Your task to perform on an android device: turn off picture-in-picture Image 0: 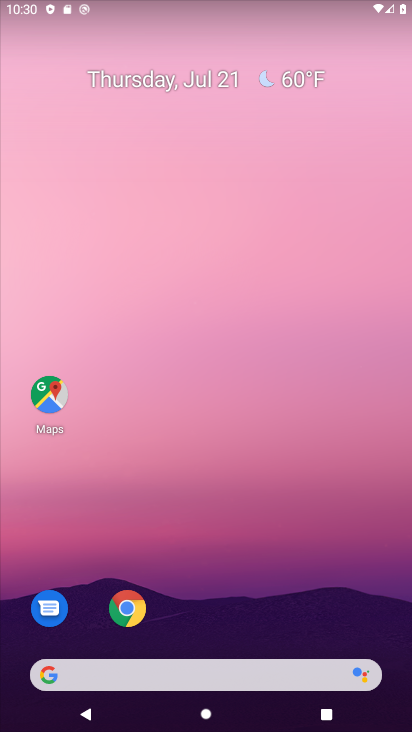
Step 0: click (135, 610)
Your task to perform on an android device: turn off picture-in-picture Image 1: 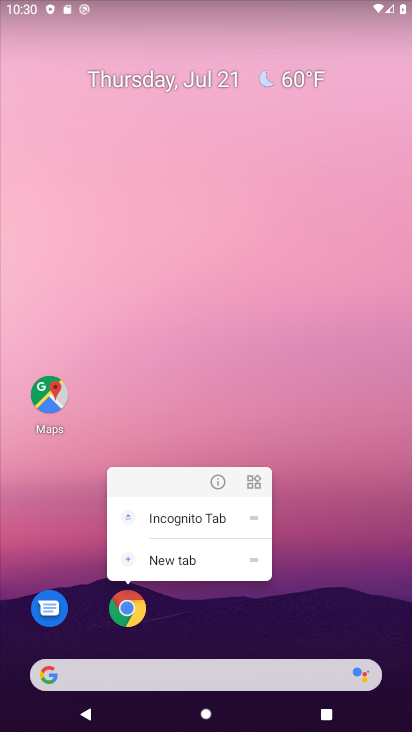
Step 1: click (220, 483)
Your task to perform on an android device: turn off picture-in-picture Image 2: 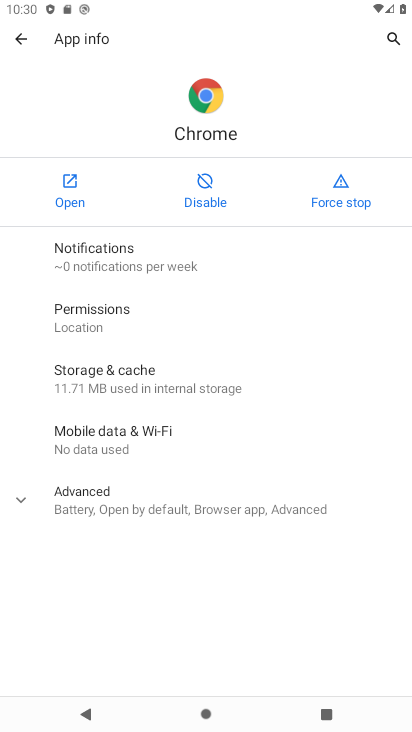
Step 2: click (95, 502)
Your task to perform on an android device: turn off picture-in-picture Image 3: 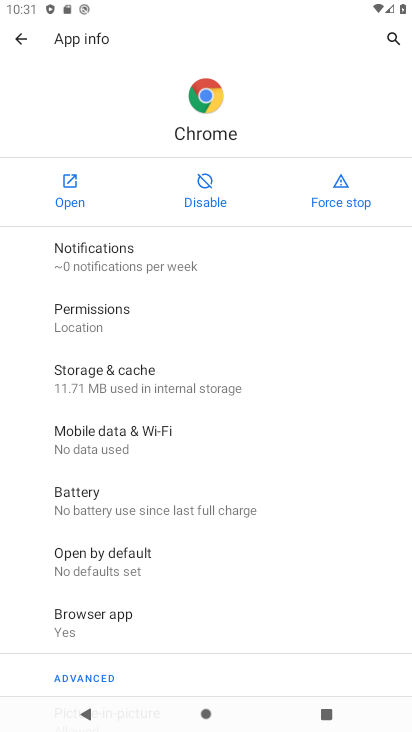
Step 3: drag from (121, 572) to (124, 295)
Your task to perform on an android device: turn off picture-in-picture Image 4: 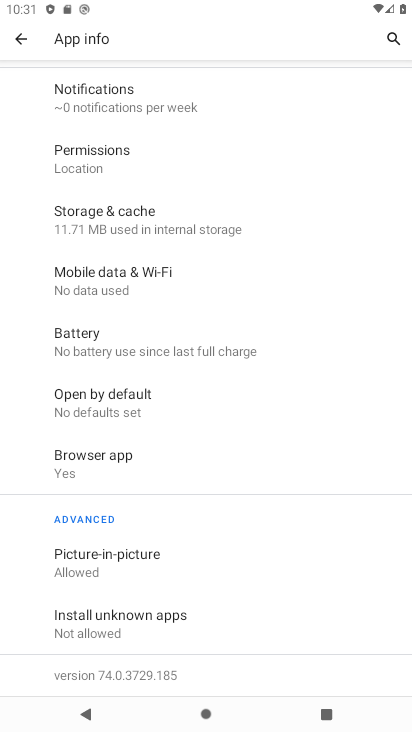
Step 4: click (95, 563)
Your task to perform on an android device: turn off picture-in-picture Image 5: 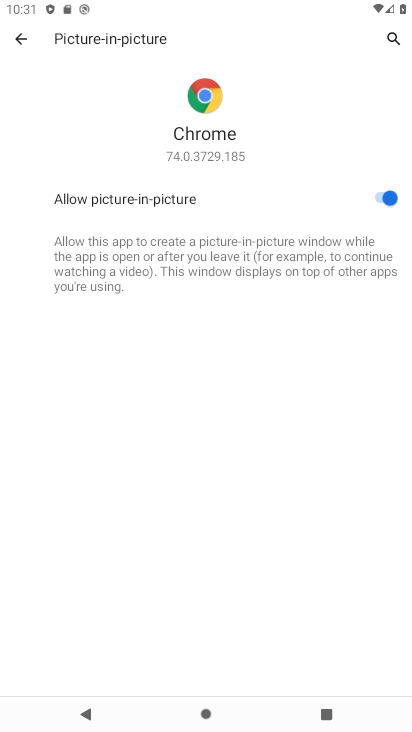
Step 5: click (342, 196)
Your task to perform on an android device: turn off picture-in-picture Image 6: 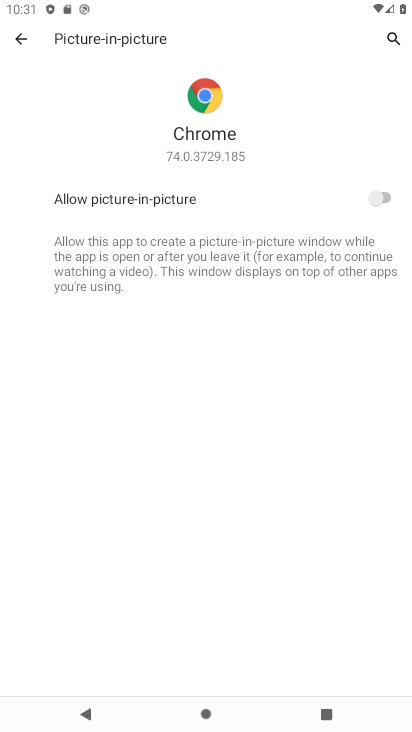
Step 6: task complete